Your task to perform on an android device: uninstall "Booking.com: Hotels and more" Image 0: 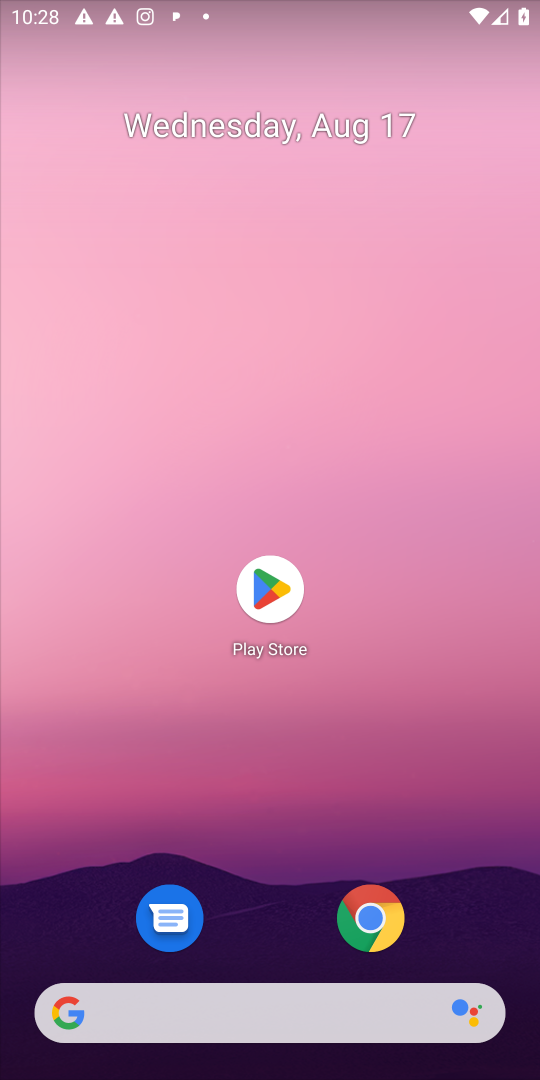
Step 0: press home button
Your task to perform on an android device: uninstall "Booking.com: Hotels and more" Image 1: 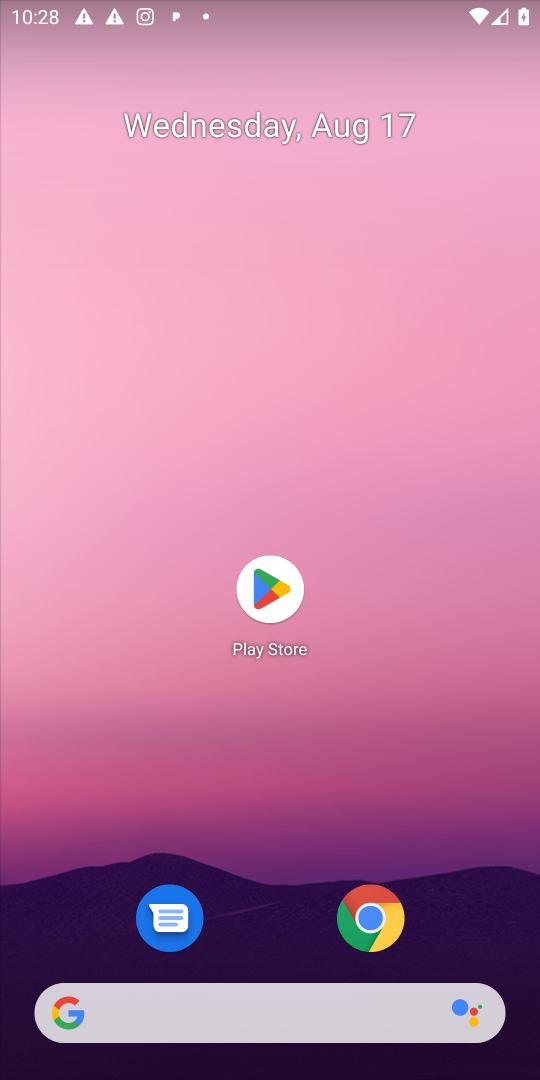
Step 1: click (278, 591)
Your task to perform on an android device: uninstall "Booking.com: Hotels and more" Image 2: 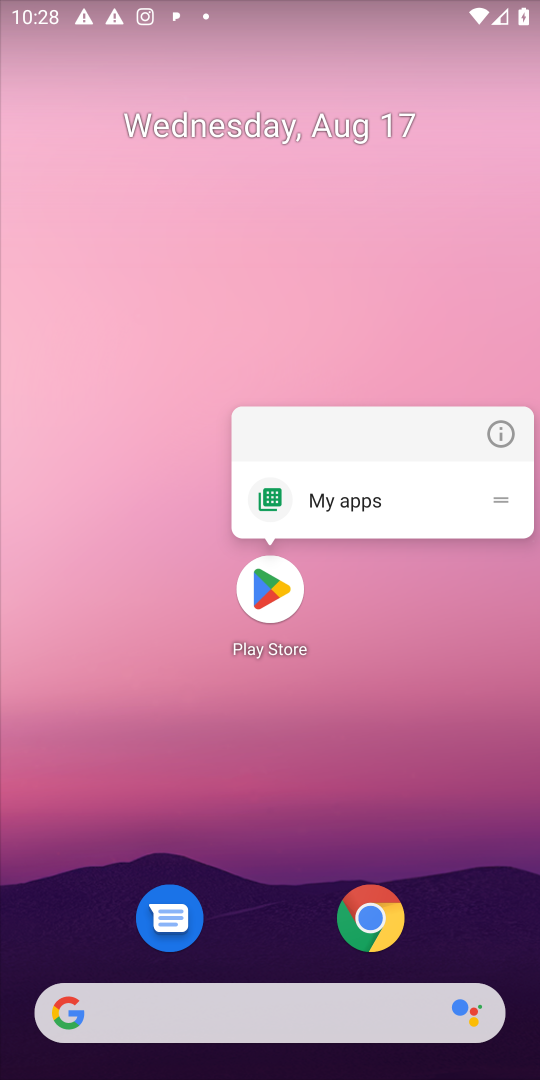
Step 2: click (278, 592)
Your task to perform on an android device: uninstall "Booking.com: Hotels and more" Image 3: 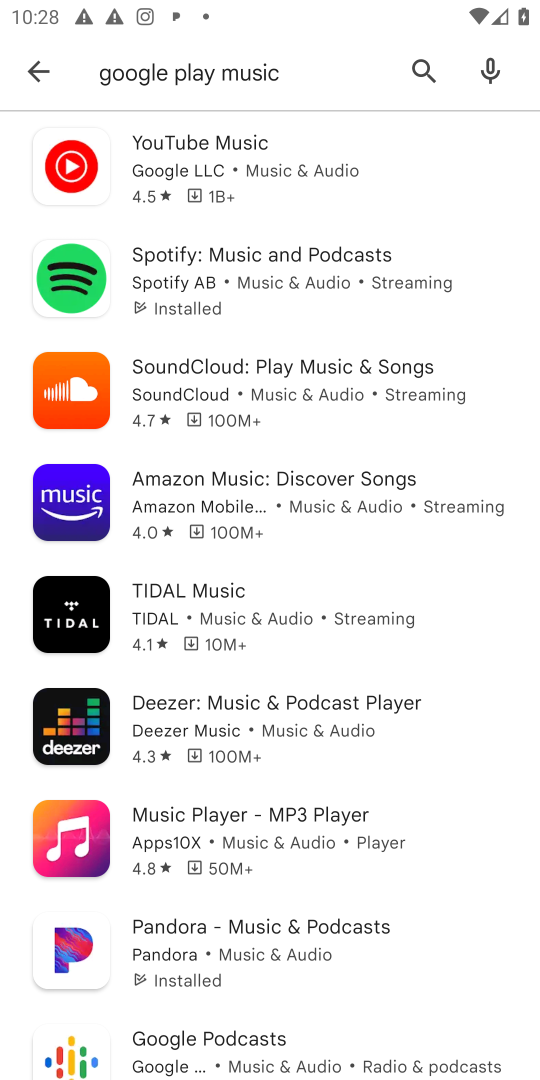
Step 3: click (425, 58)
Your task to perform on an android device: uninstall "Booking.com: Hotels and more" Image 4: 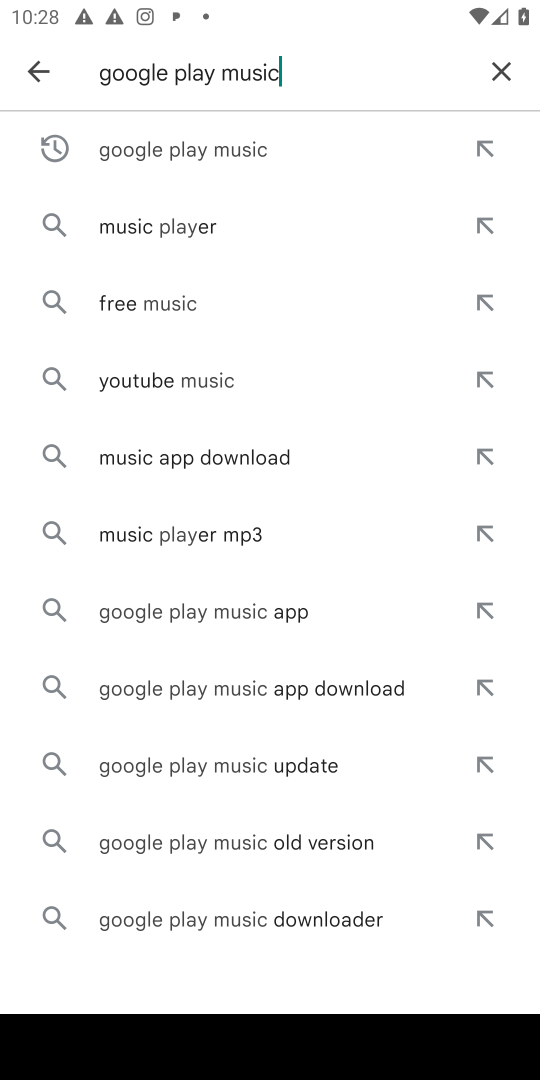
Step 4: click (501, 66)
Your task to perform on an android device: uninstall "Booking.com: Hotels and more" Image 5: 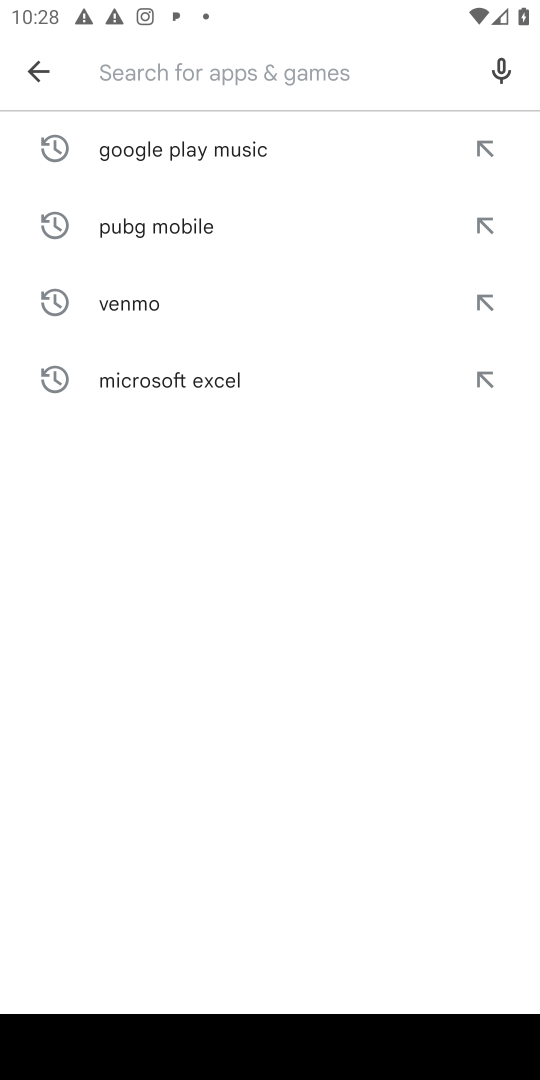
Step 5: type "Booking.com: Hotels and more"
Your task to perform on an android device: uninstall "Booking.com: Hotels and more" Image 6: 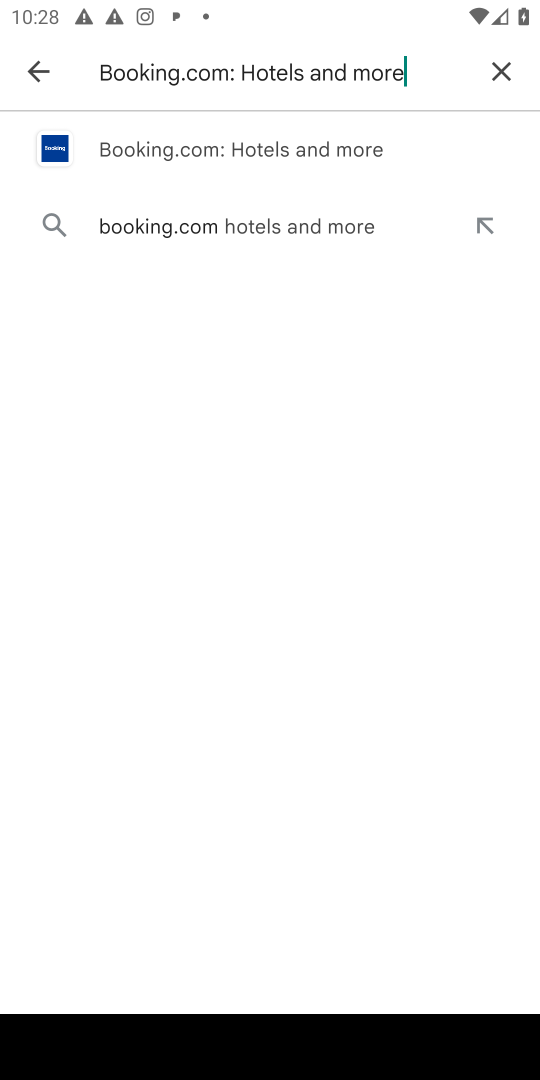
Step 6: click (237, 147)
Your task to perform on an android device: uninstall "Booking.com: Hotels and more" Image 7: 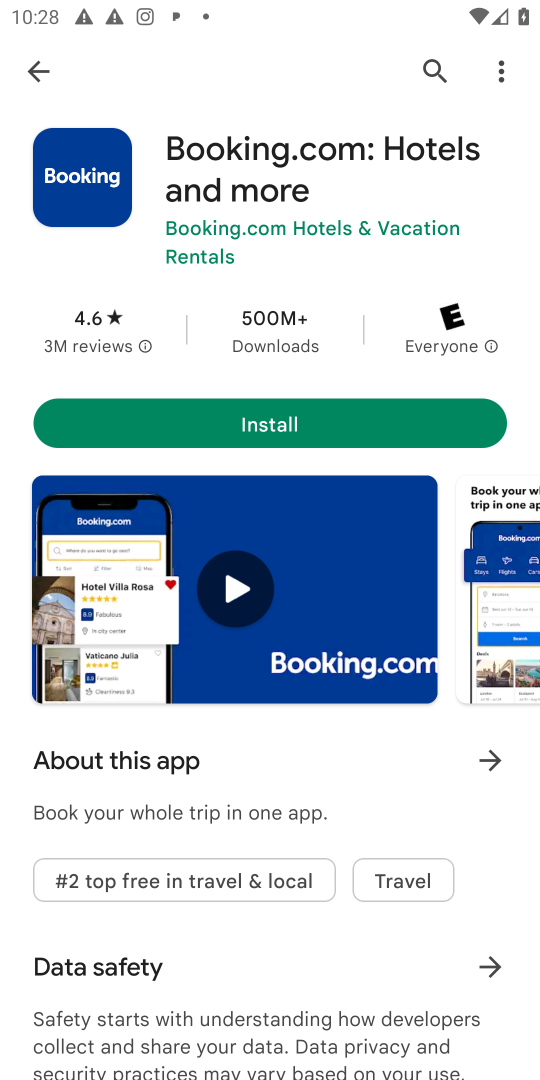
Step 7: task complete